Your task to perform on an android device: Go to settings Image 0: 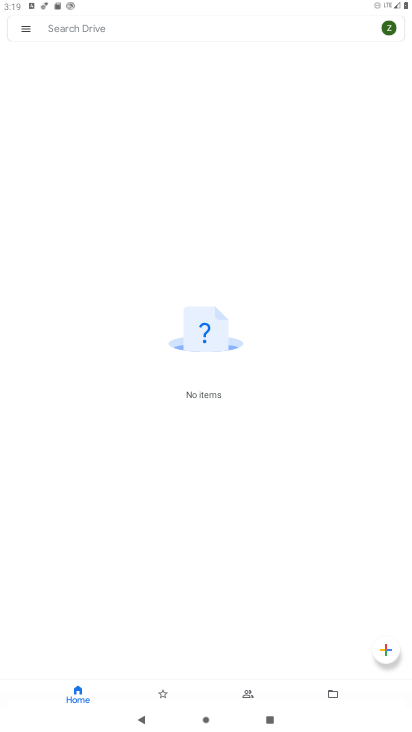
Step 0: press home button
Your task to perform on an android device: Go to settings Image 1: 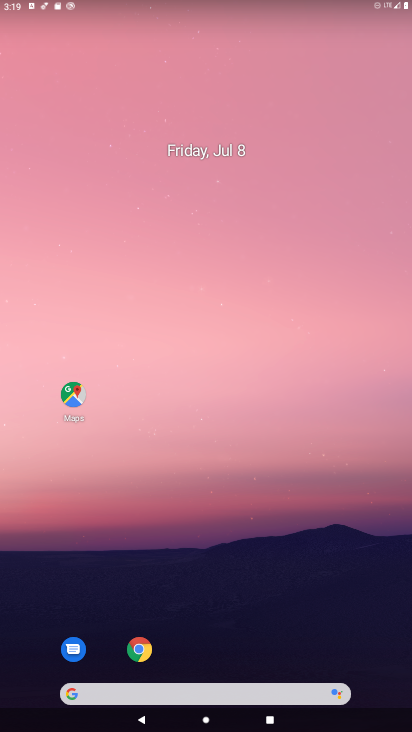
Step 1: drag from (343, 661) to (330, 186)
Your task to perform on an android device: Go to settings Image 2: 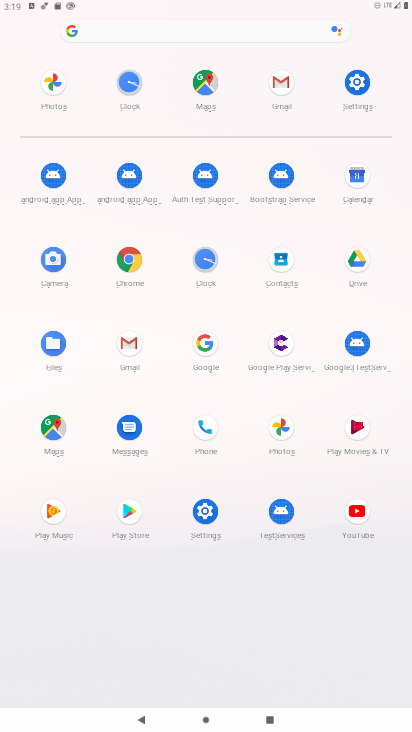
Step 2: click (205, 514)
Your task to perform on an android device: Go to settings Image 3: 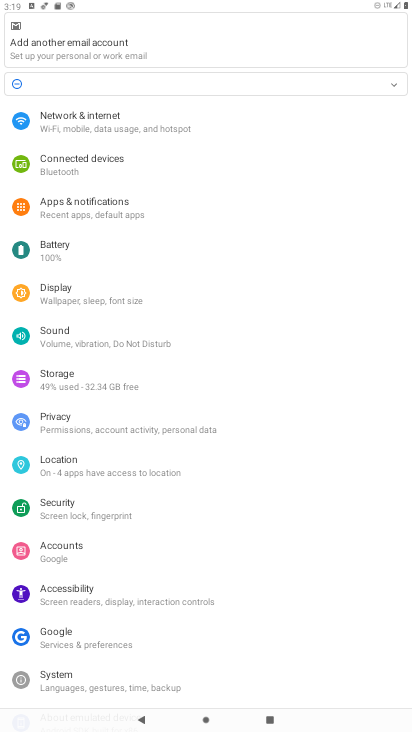
Step 3: task complete